Your task to perform on an android device: turn on improve location accuracy Image 0: 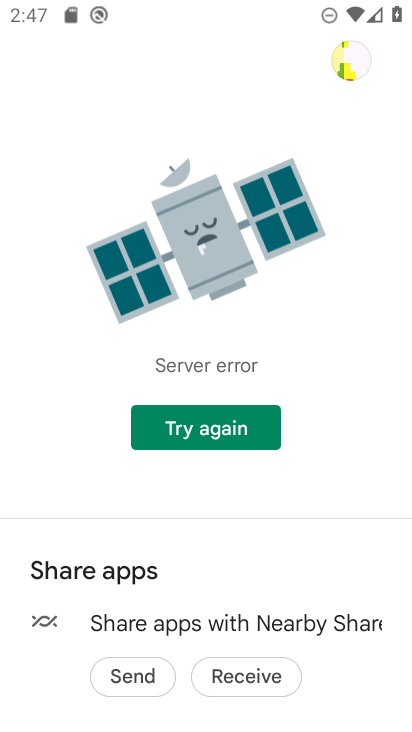
Step 0: press home button
Your task to perform on an android device: turn on improve location accuracy Image 1: 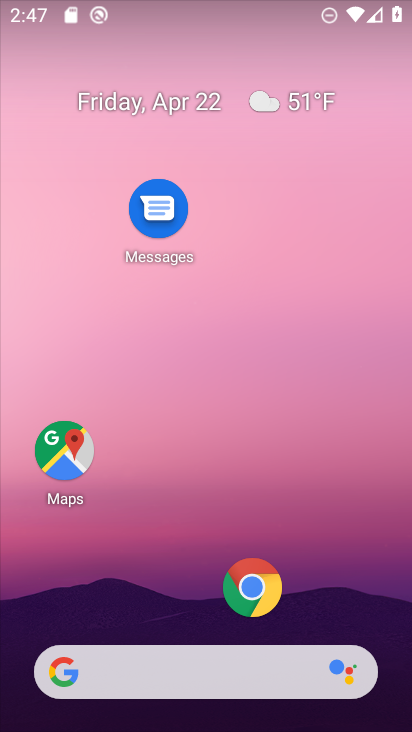
Step 1: drag from (160, 606) to (222, 190)
Your task to perform on an android device: turn on improve location accuracy Image 2: 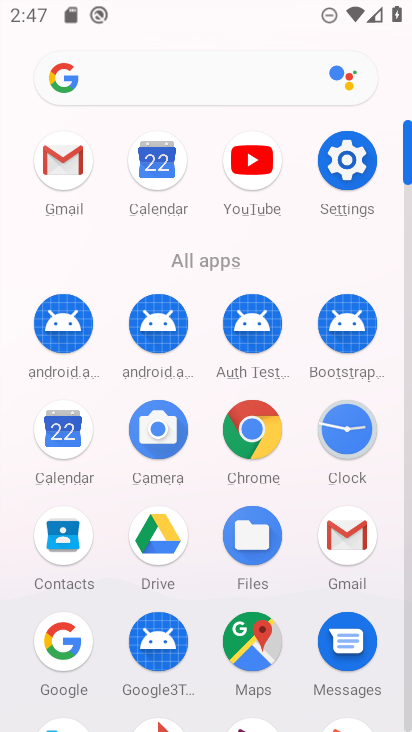
Step 2: click (358, 163)
Your task to perform on an android device: turn on improve location accuracy Image 3: 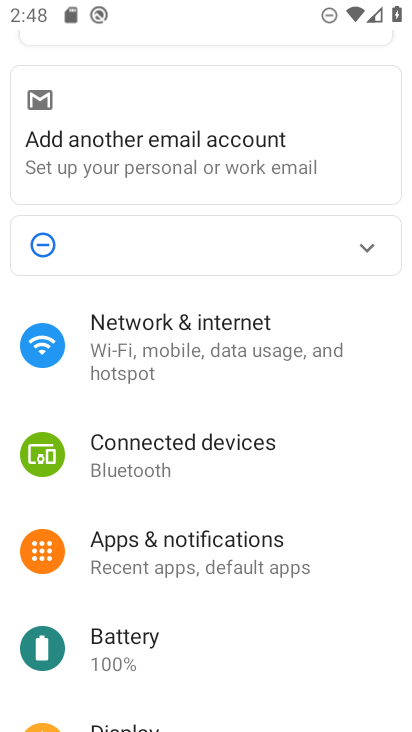
Step 3: drag from (237, 592) to (272, 285)
Your task to perform on an android device: turn on improve location accuracy Image 4: 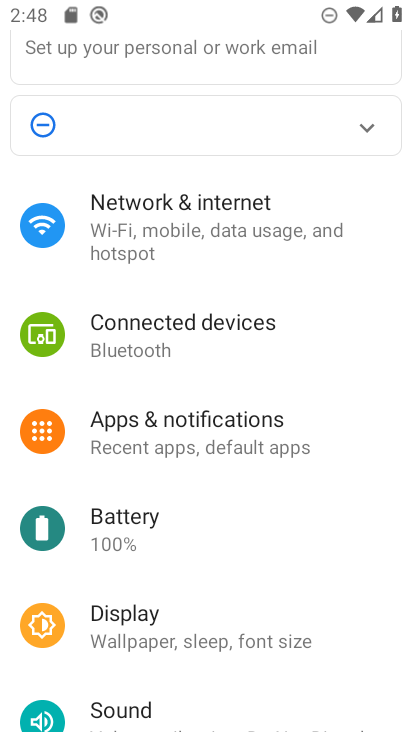
Step 4: drag from (259, 489) to (276, 241)
Your task to perform on an android device: turn on improve location accuracy Image 5: 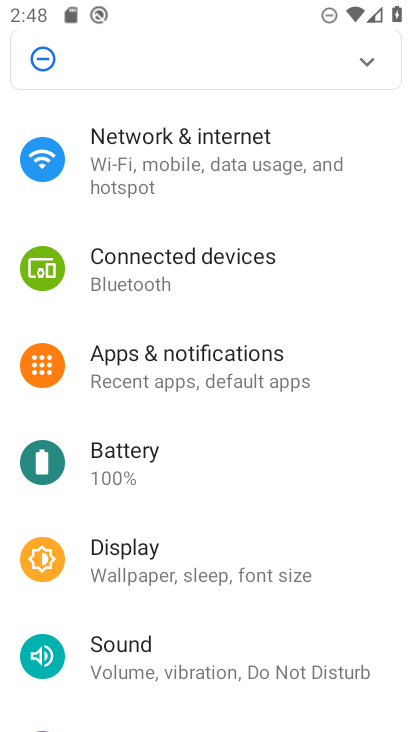
Step 5: drag from (256, 572) to (283, 251)
Your task to perform on an android device: turn on improve location accuracy Image 6: 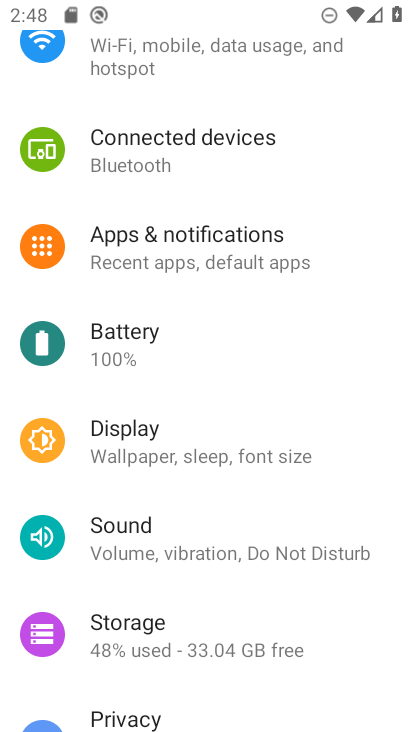
Step 6: drag from (242, 592) to (293, 224)
Your task to perform on an android device: turn on improve location accuracy Image 7: 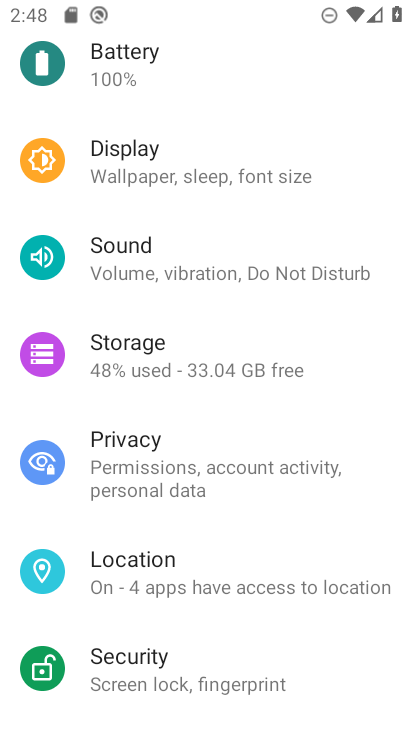
Step 7: click (224, 570)
Your task to perform on an android device: turn on improve location accuracy Image 8: 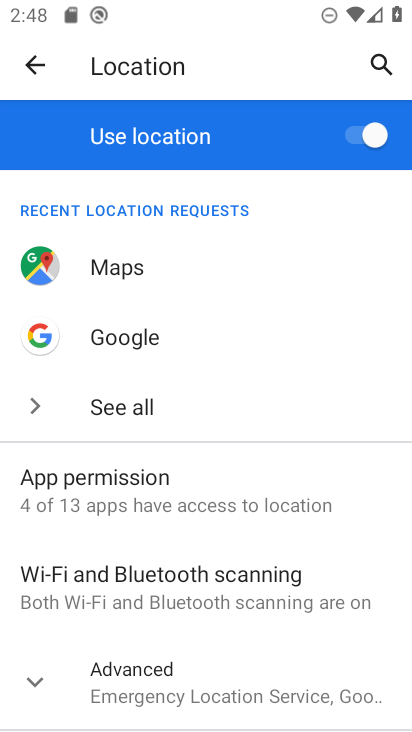
Step 8: click (167, 672)
Your task to perform on an android device: turn on improve location accuracy Image 9: 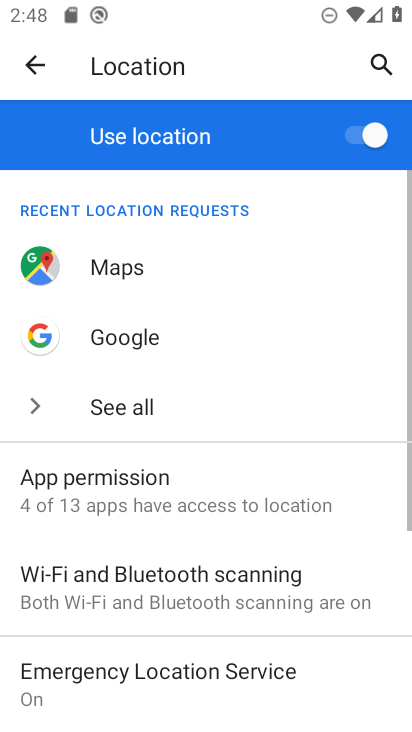
Step 9: drag from (203, 664) to (223, 400)
Your task to perform on an android device: turn on improve location accuracy Image 10: 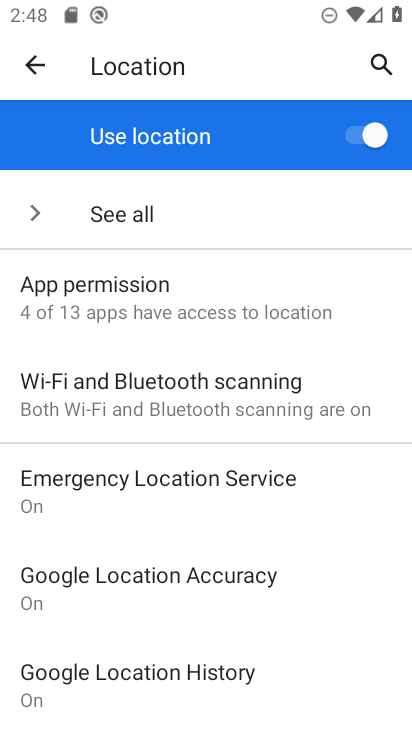
Step 10: drag from (222, 646) to (268, 466)
Your task to perform on an android device: turn on improve location accuracy Image 11: 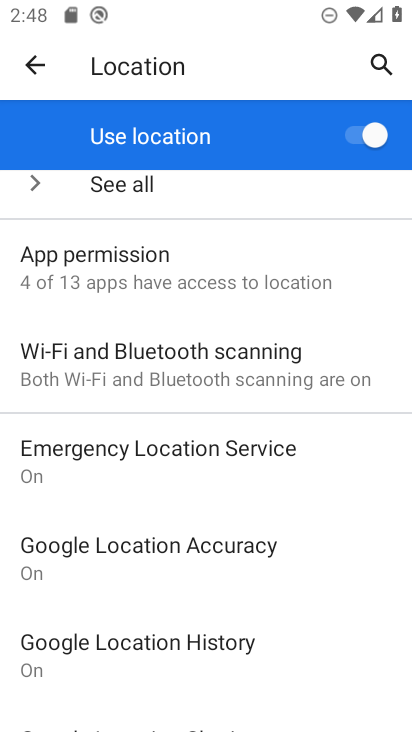
Step 11: drag from (250, 595) to (279, 374)
Your task to perform on an android device: turn on improve location accuracy Image 12: 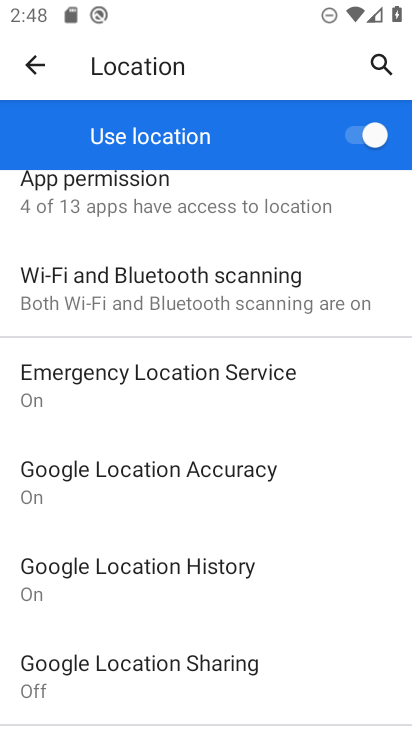
Step 12: click (225, 465)
Your task to perform on an android device: turn on improve location accuracy Image 13: 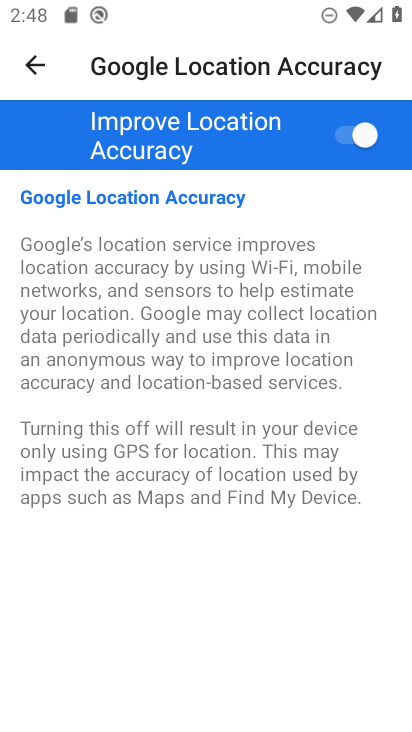
Step 13: task complete